Your task to perform on an android device: turn off priority inbox in the gmail app Image 0: 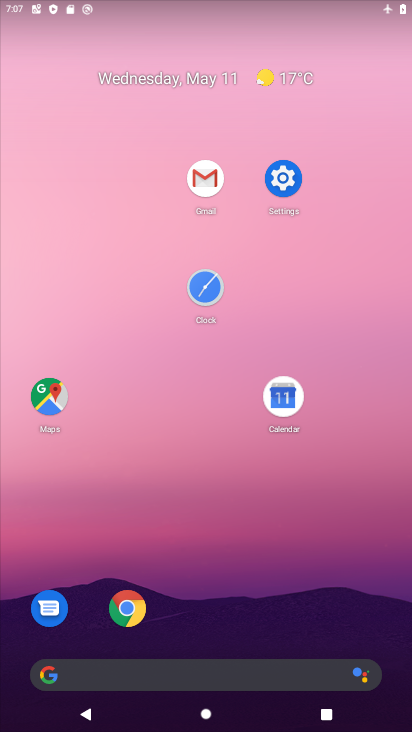
Step 0: click (219, 593)
Your task to perform on an android device: turn off priority inbox in the gmail app Image 1: 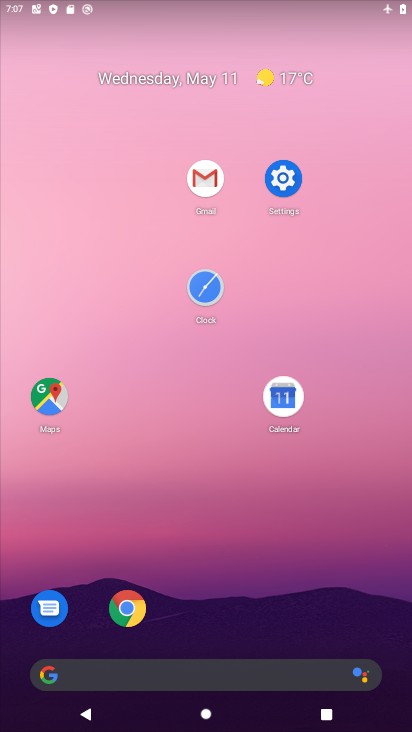
Step 1: click (193, 181)
Your task to perform on an android device: turn off priority inbox in the gmail app Image 2: 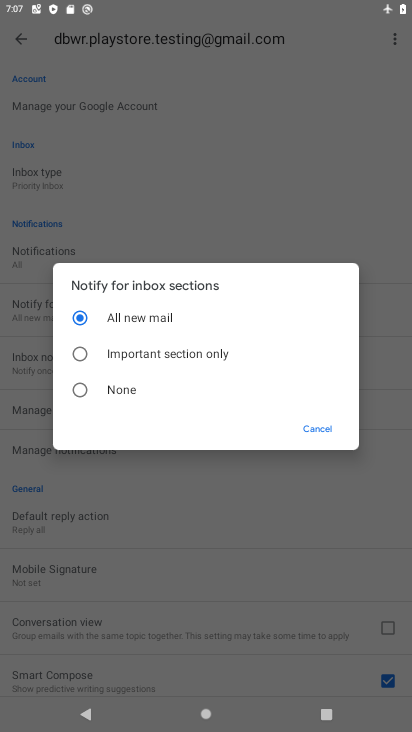
Step 2: click (334, 432)
Your task to perform on an android device: turn off priority inbox in the gmail app Image 3: 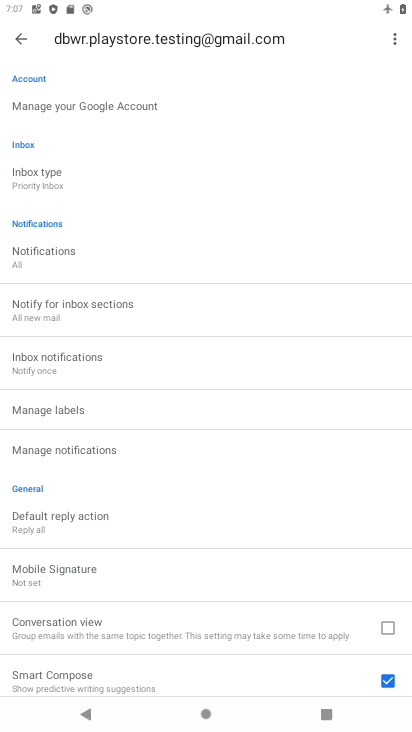
Step 3: click (253, 187)
Your task to perform on an android device: turn off priority inbox in the gmail app Image 4: 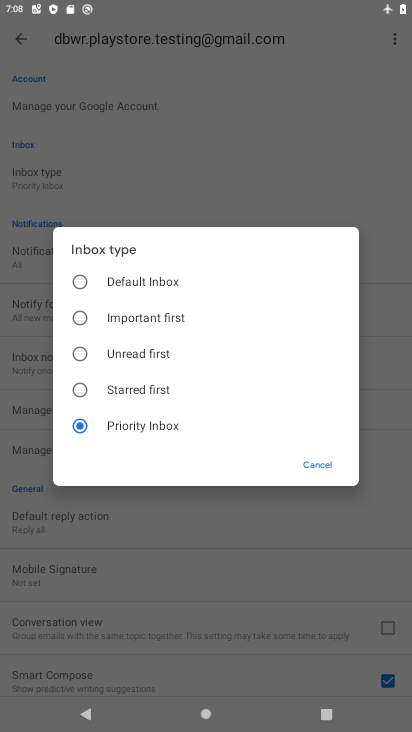
Step 4: click (222, 279)
Your task to perform on an android device: turn off priority inbox in the gmail app Image 5: 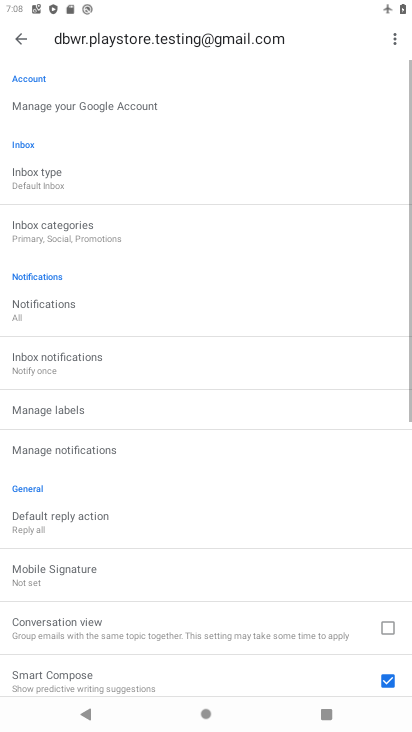
Step 5: task complete